Your task to perform on an android device: change text size in settings app Image 0: 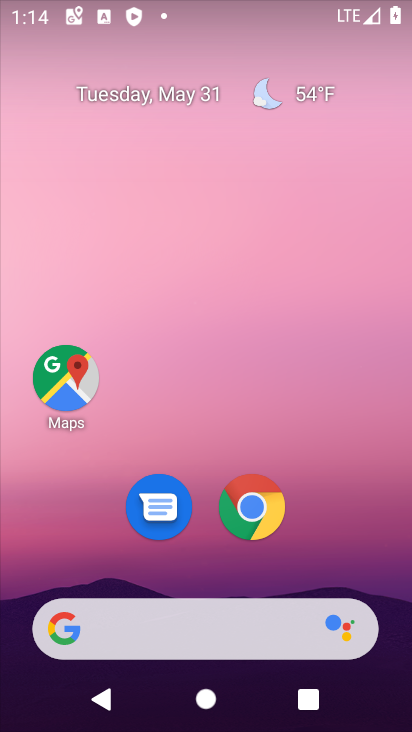
Step 0: drag from (398, 625) to (350, 12)
Your task to perform on an android device: change text size in settings app Image 1: 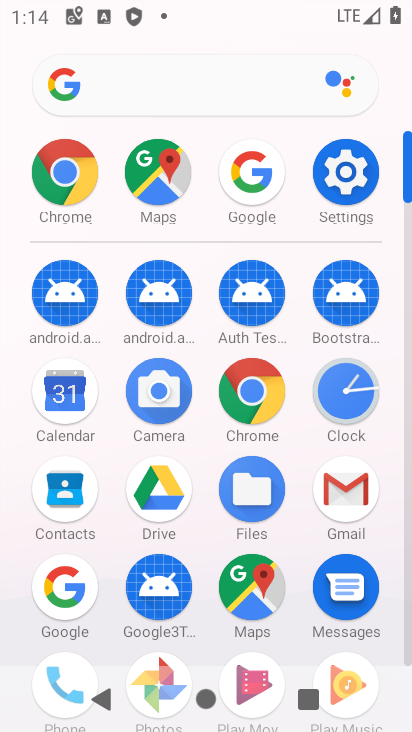
Step 1: click (344, 180)
Your task to perform on an android device: change text size in settings app Image 2: 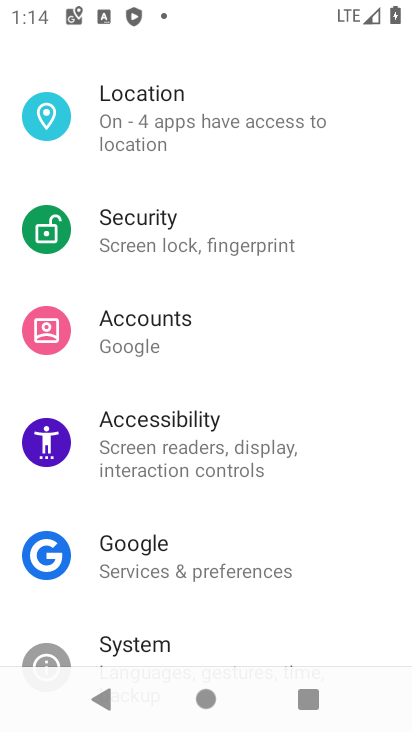
Step 2: drag from (196, 201) to (203, 560)
Your task to perform on an android device: change text size in settings app Image 3: 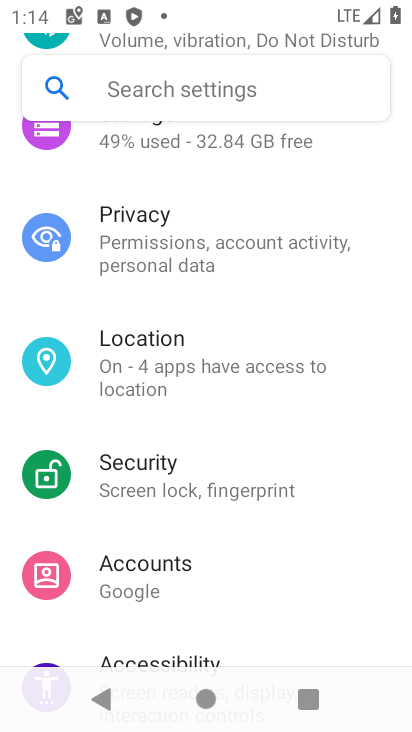
Step 3: drag from (139, 196) to (233, 584)
Your task to perform on an android device: change text size in settings app Image 4: 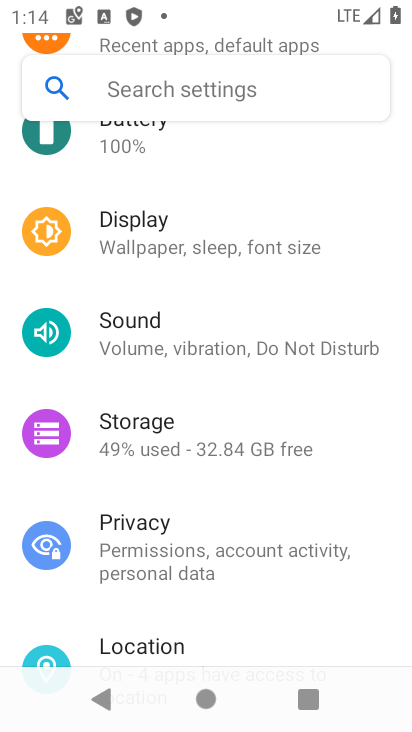
Step 4: click (158, 218)
Your task to perform on an android device: change text size in settings app Image 5: 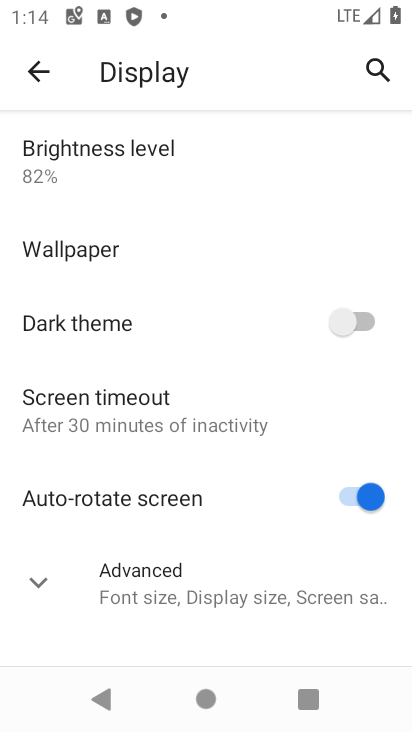
Step 5: click (143, 593)
Your task to perform on an android device: change text size in settings app Image 6: 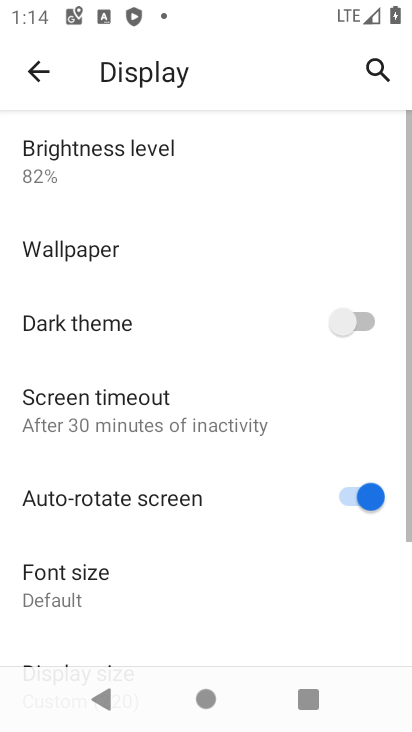
Step 6: click (143, 593)
Your task to perform on an android device: change text size in settings app Image 7: 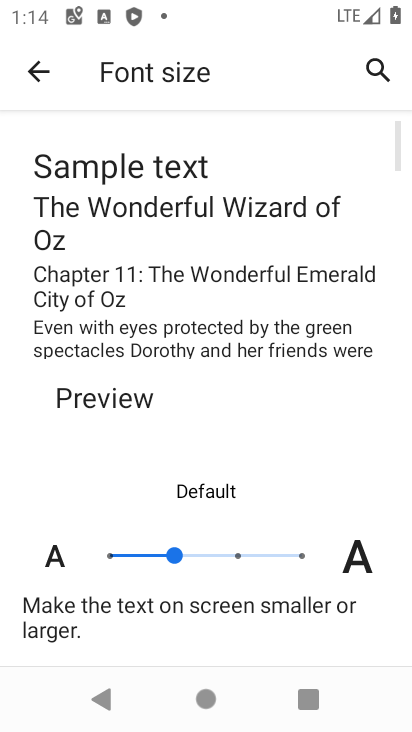
Step 7: click (234, 552)
Your task to perform on an android device: change text size in settings app Image 8: 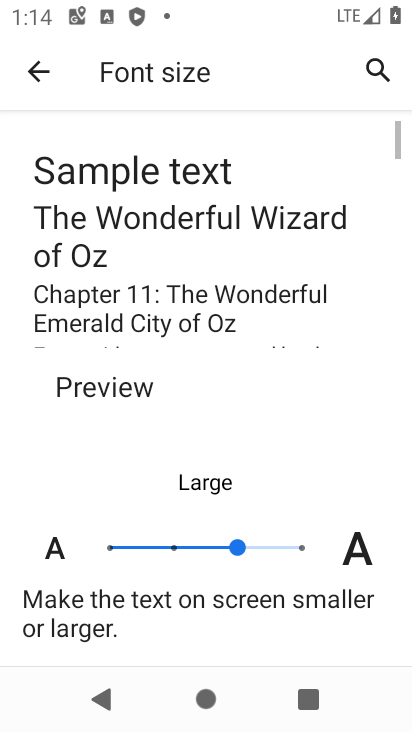
Step 8: task complete